Your task to perform on an android device: Show the shopping cart on costco.com. Search for "asus zenbook" on costco.com, select the first entry, and add it to the cart. Image 0: 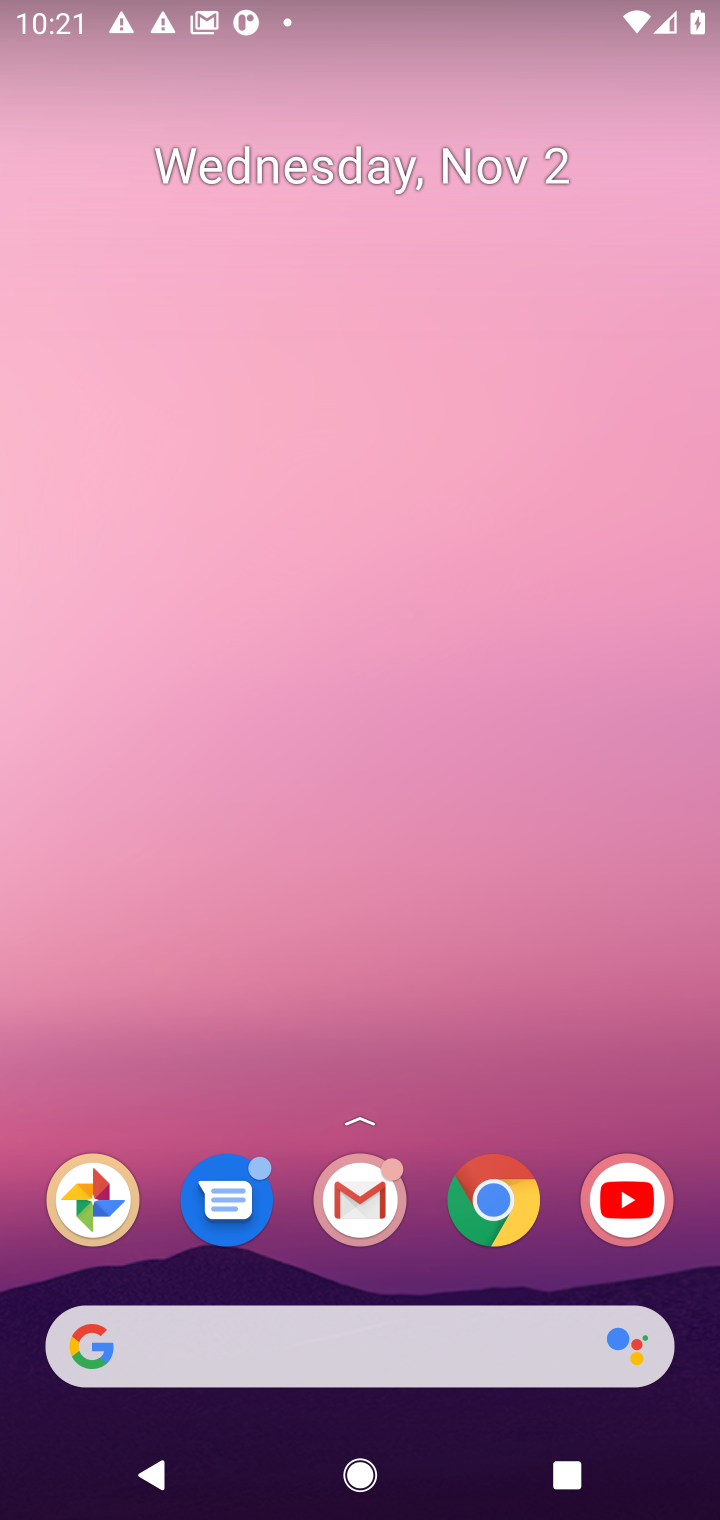
Step 0: press home button
Your task to perform on an android device: Show the shopping cart on costco.com. Search for "asus zenbook" on costco.com, select the first entry, and add it to the cart. Image 1: 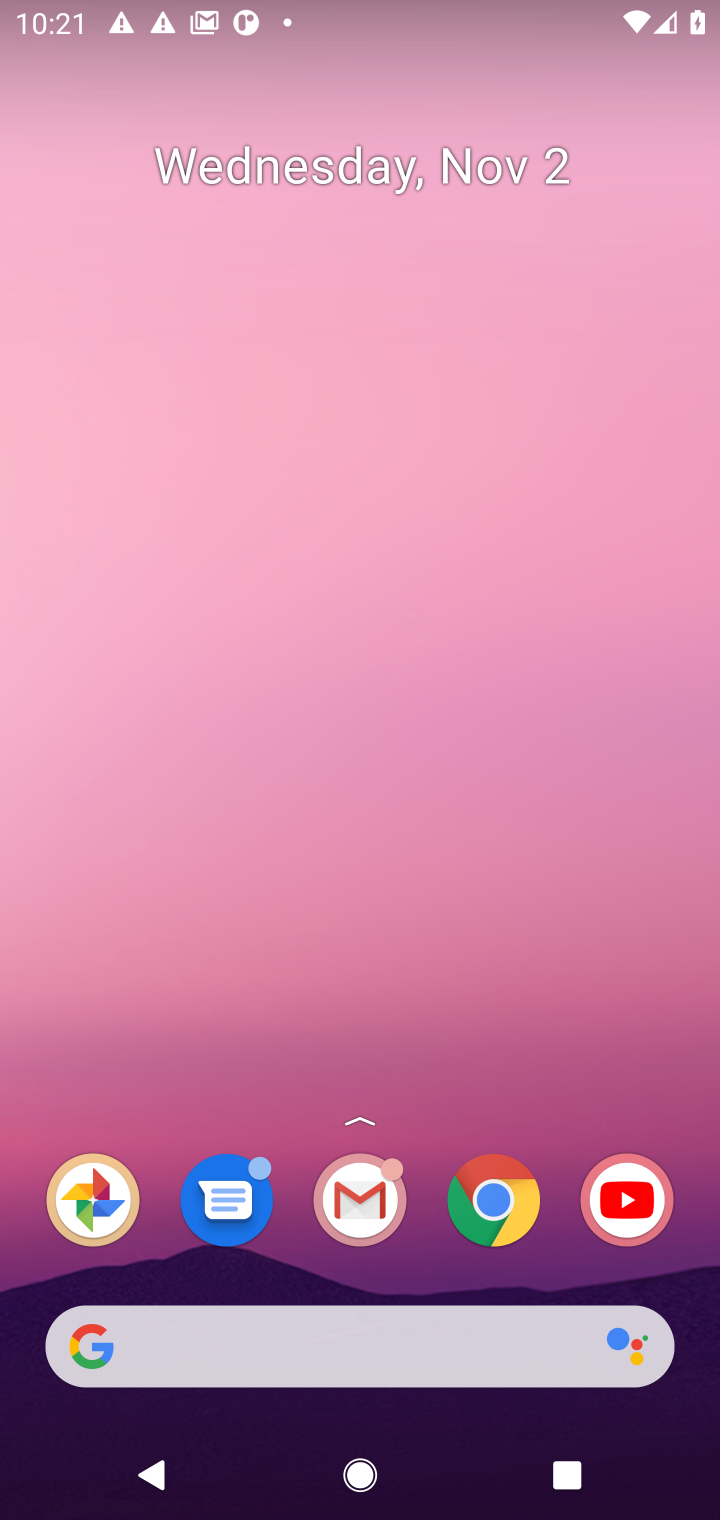
Step 1: click (491, 1181)
Your task to perform on an android device: Show the shopping cart on costco.com. Search for "asus zenbook" on costco.com, select the first entry, and add it to the cart. Image 2: 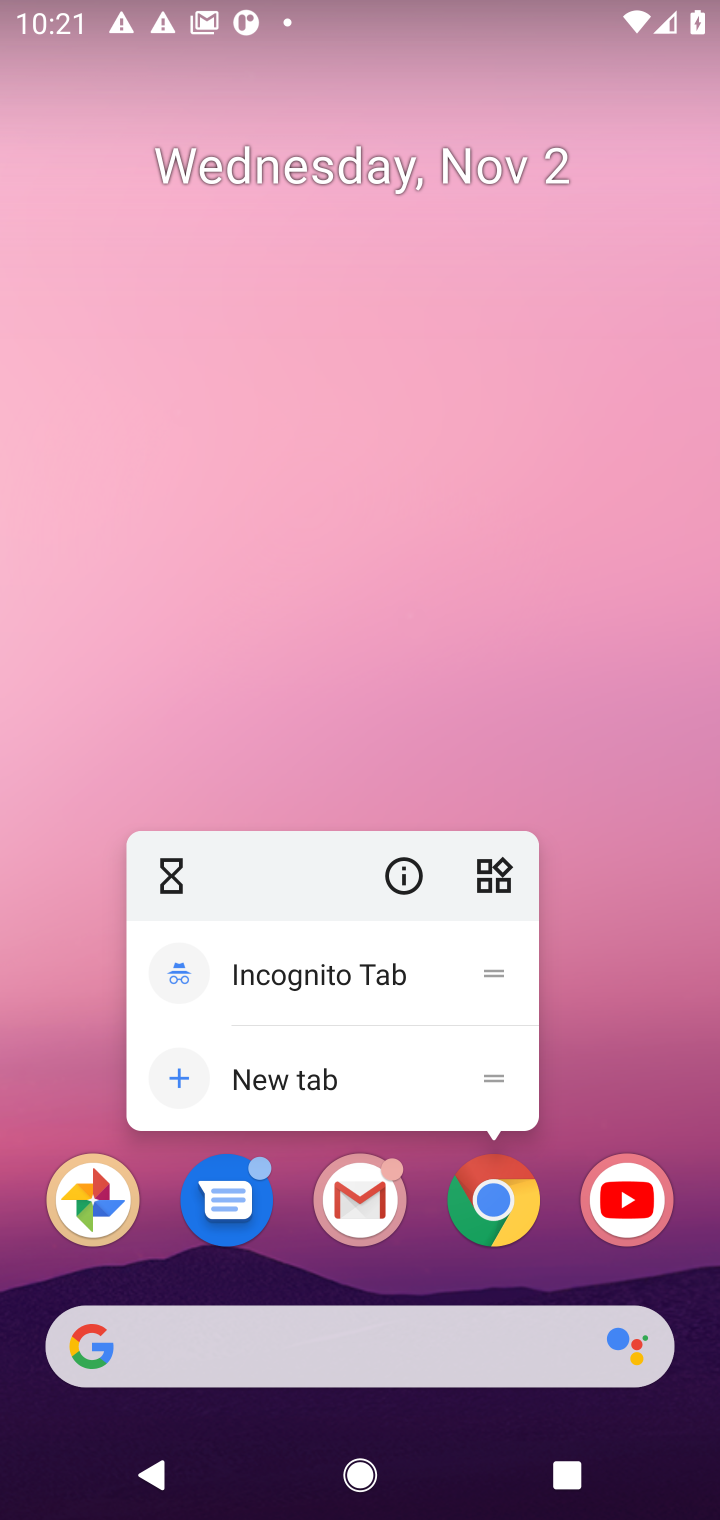
Step 2: click (491, 1181)
Your task to perform on an android device: Show the shopping cart on costco.com. Search for "asus zenbook" on costco.com, select the first entry, and add it to the cart. Image 3: 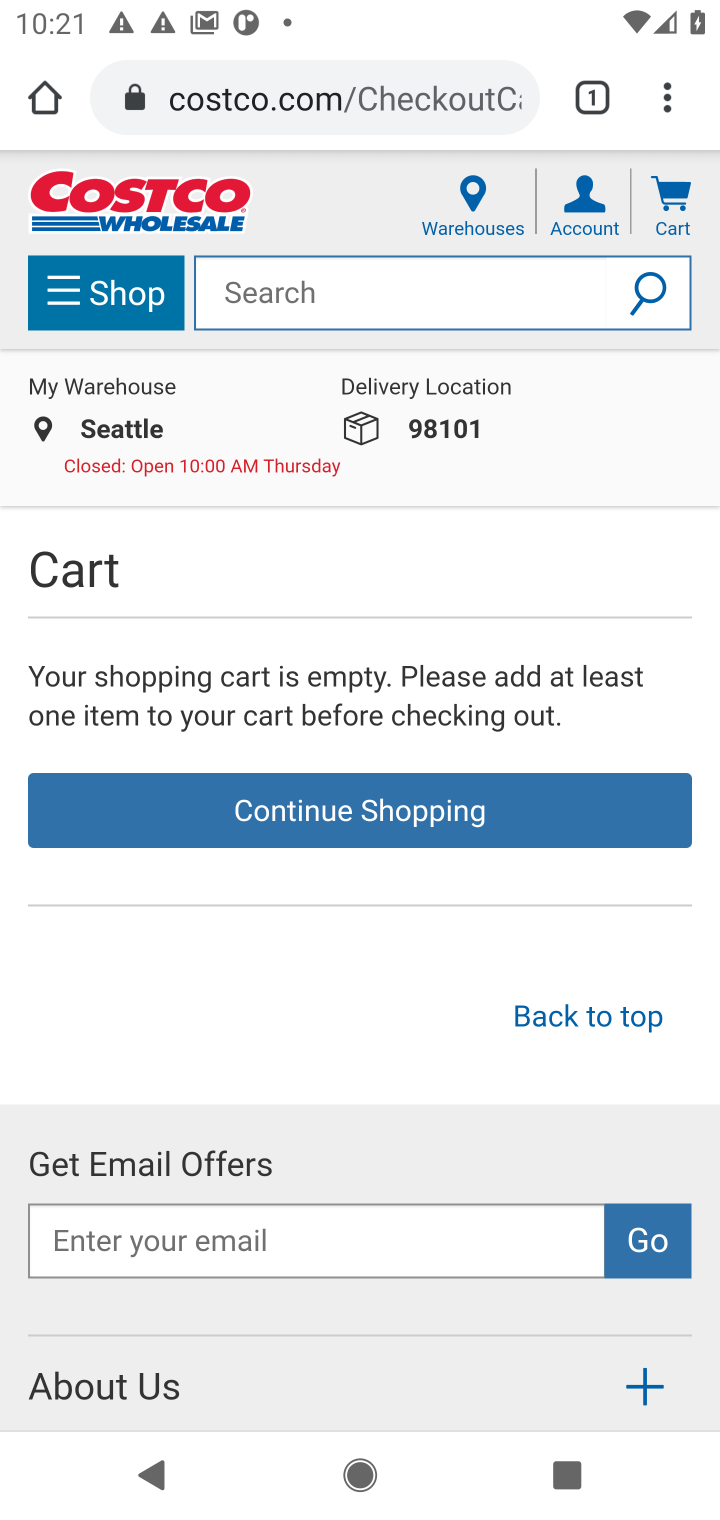
Step 3: click (304, 88)
Your task to perform on an android device: Show the shopping cart on costco.com. Search for "asus zenbook" on costco.com, select the first entry, and add it to the cart. Image 4: 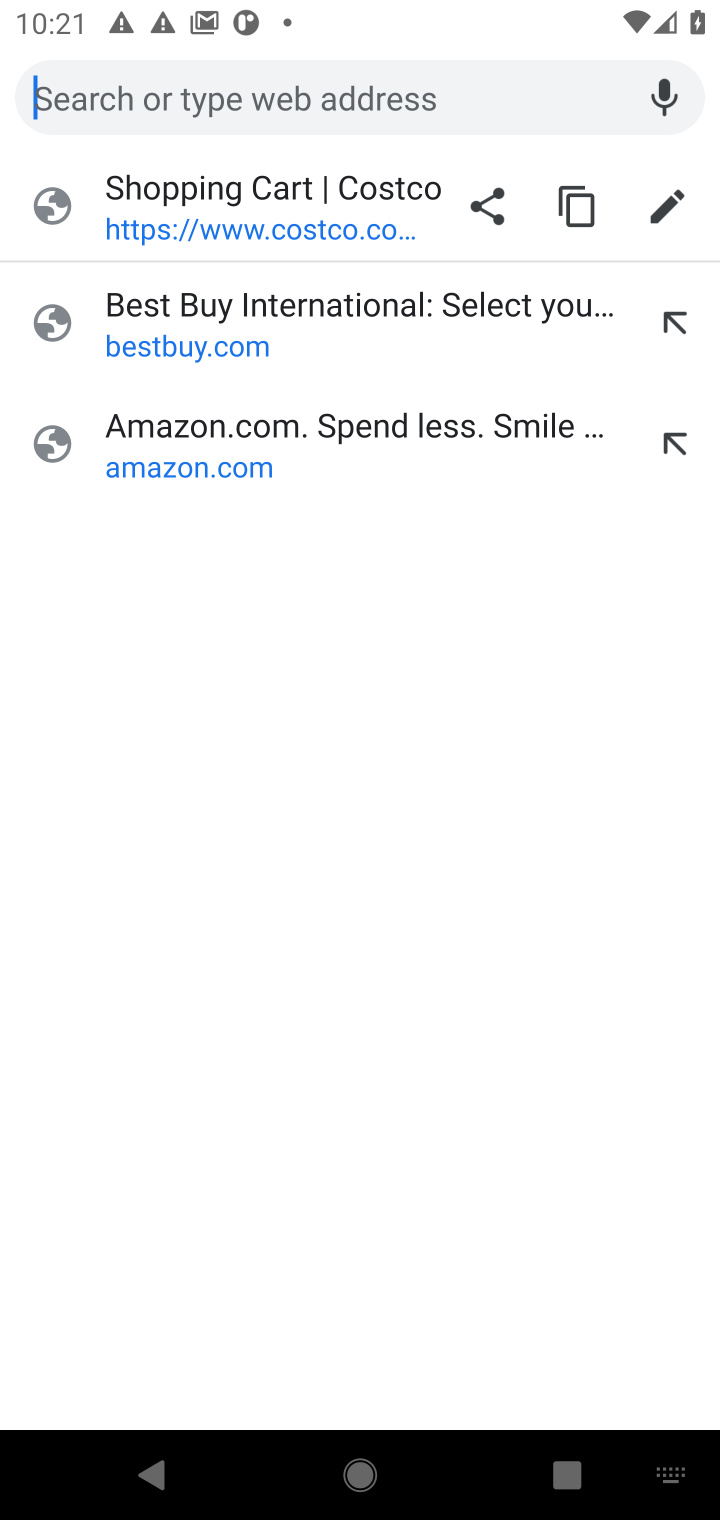
Step 4: click (292, 185)
Your task to perform on an android device: Show the shopping cart on costco.com. Search for "asus zenbook" on costco.com, select the first entry, and add it to the cart. Image 5: 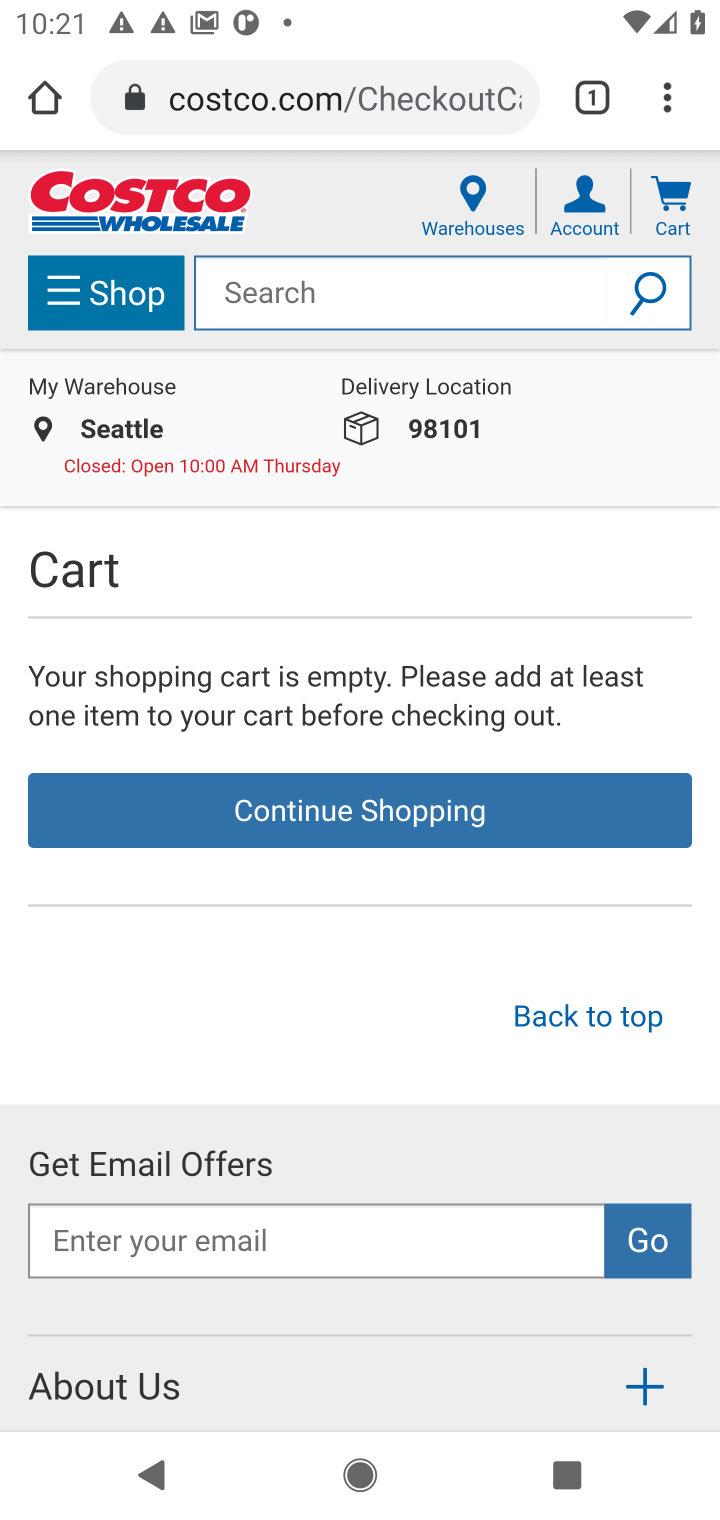
Step 5: click (357, 296)
Your task to perform on an android device: Show the shopping cart on costco.com. Search for "asus zenbook" on costco.com, select the first entry, and add it to the cart. Image 6: 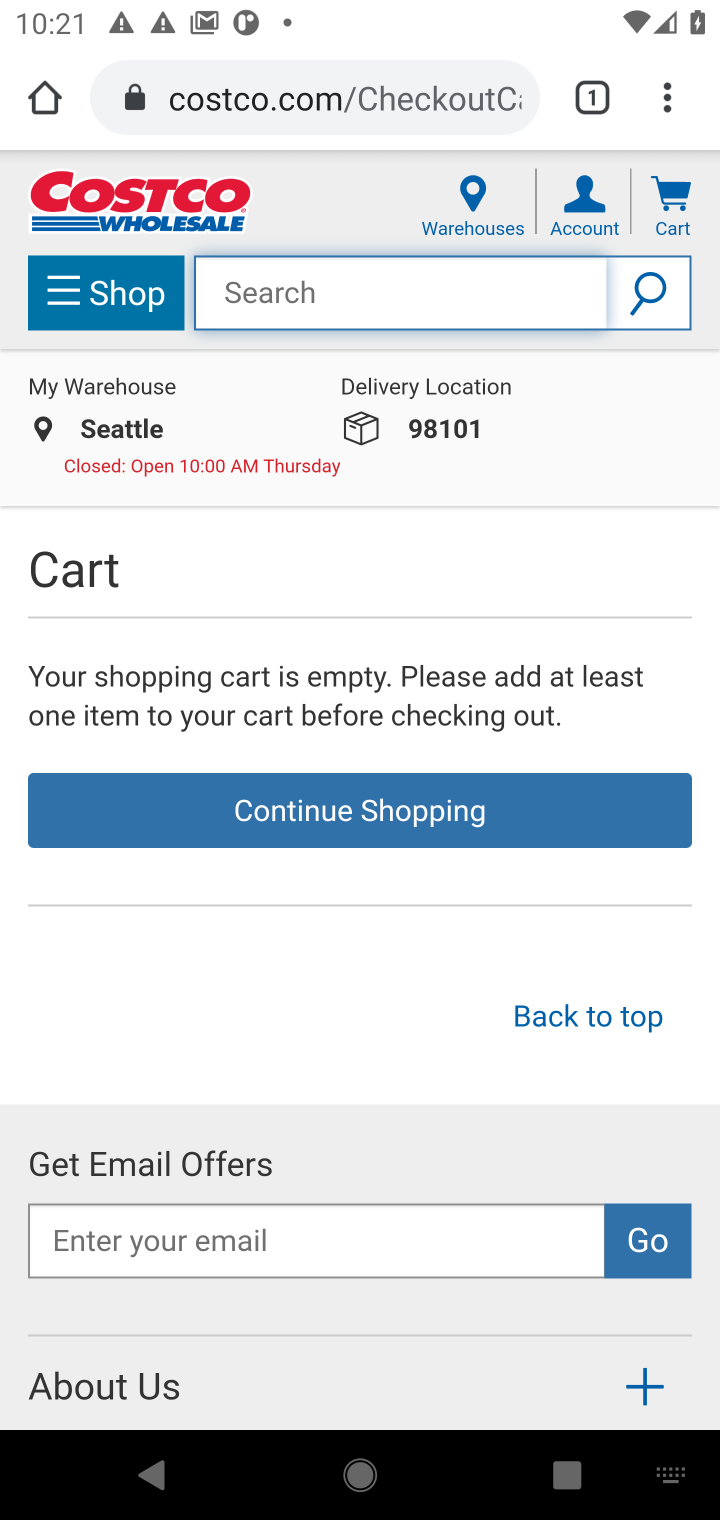
Step 6: click (420, 284)
Your task to perform on an android device: Show the shopping cart on costco.com. Search for "asus zenbook" on costco.com, select the first entry, and add it to the cart. Image 7: 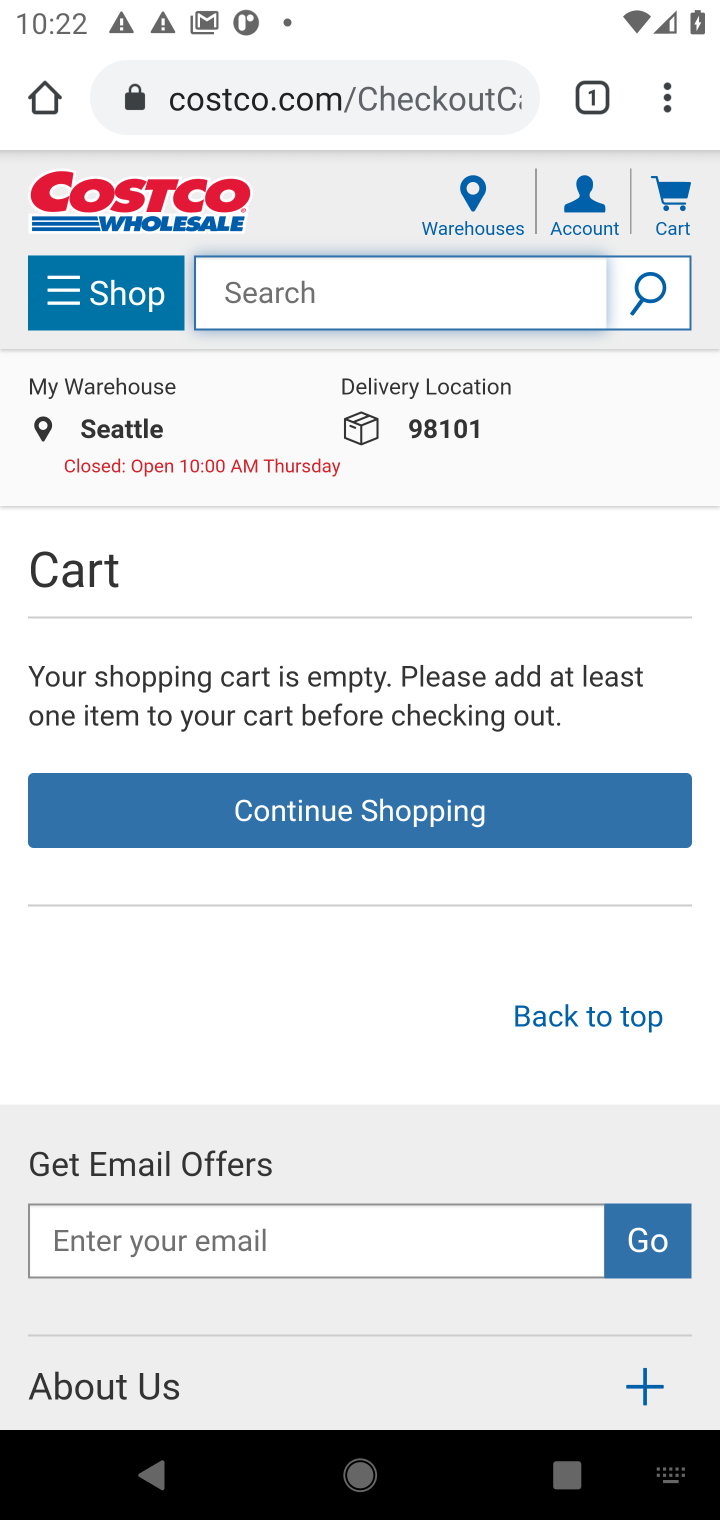
Step 7: press enter
Your task to perform on an android device: Show the shopping cart on costco.com. Search for "asus zenbook" on costco.com, select the first entry, and add it to the cart. Image 8: 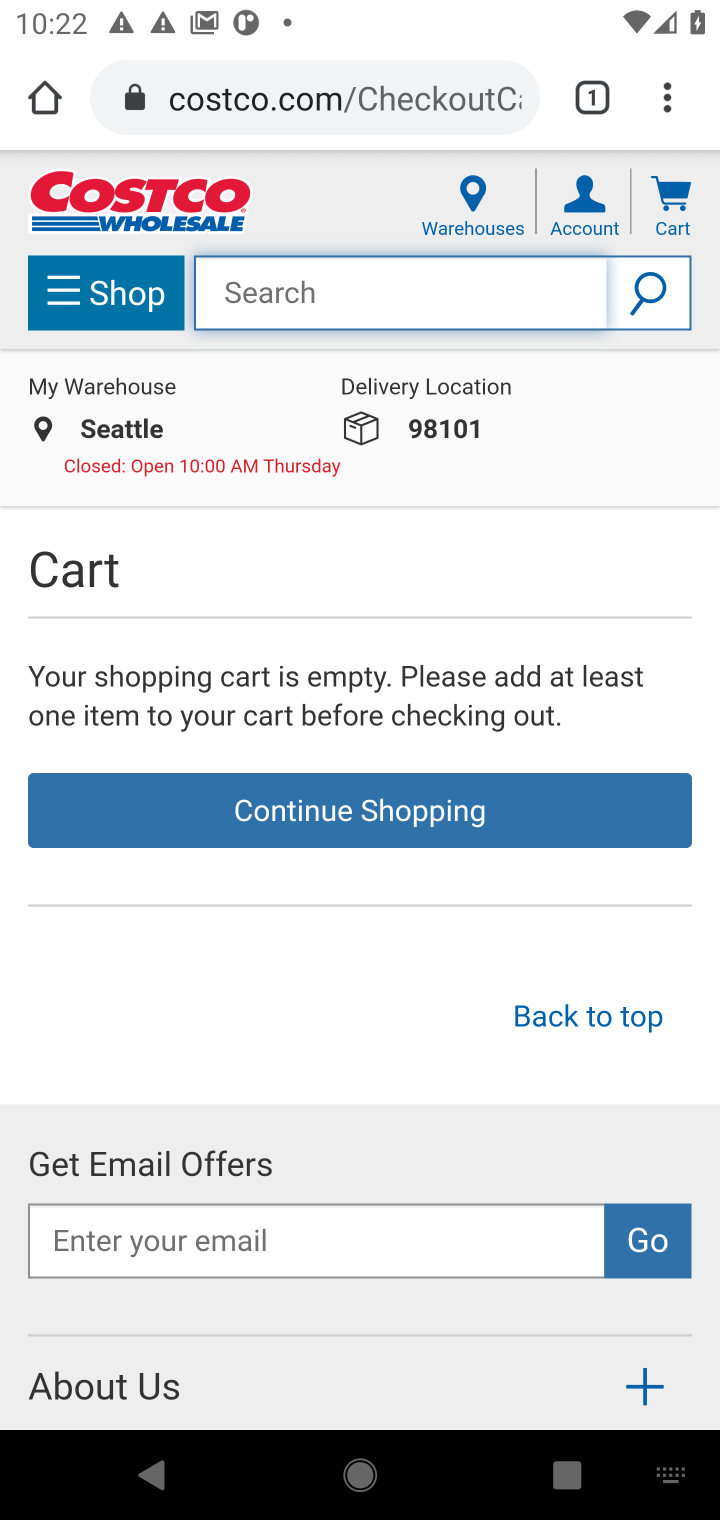
Step 8: type "asus zenbook"
Your task to perform on an android device: Show the shopping cart on costco.com. Search for "asus zenbook" on costco.com, select the first entry, and add it to the cart. Image 9: 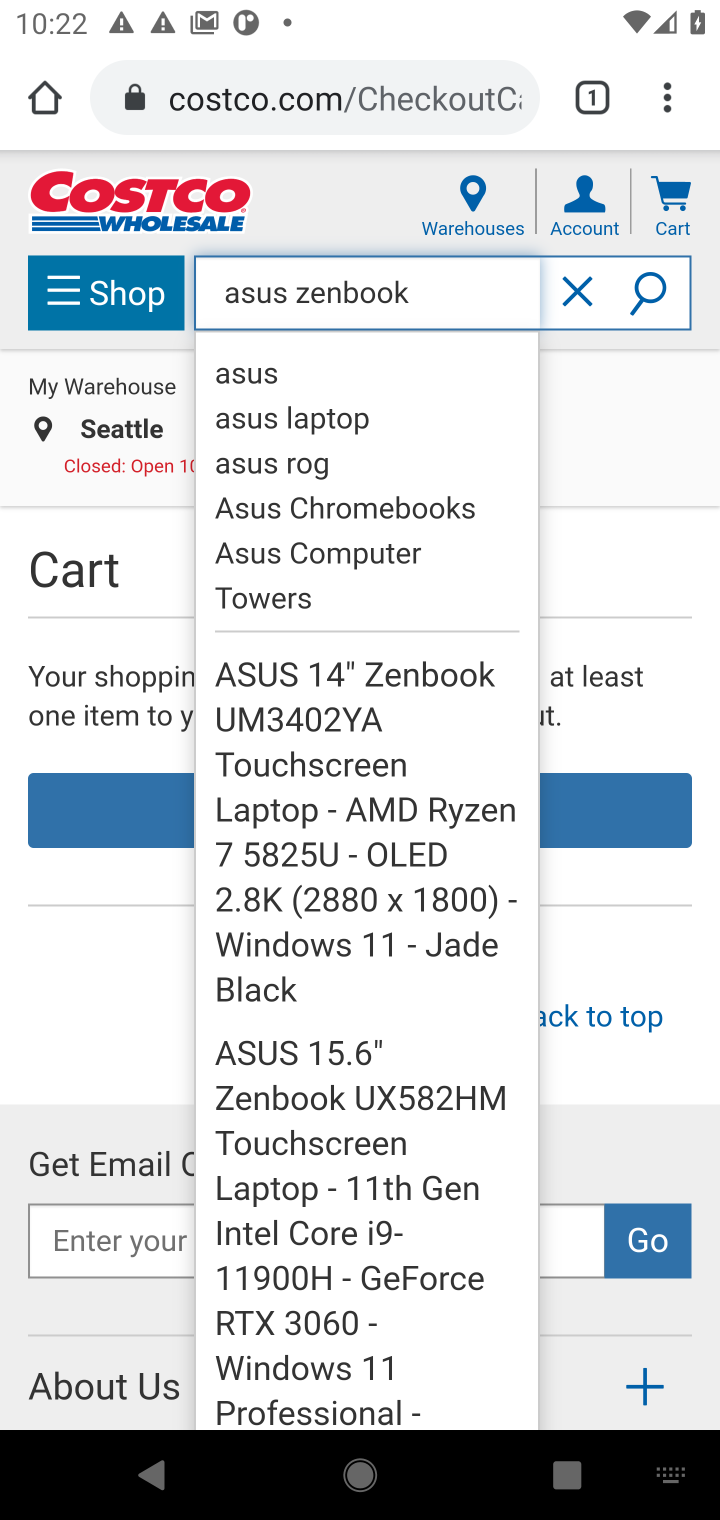
Step 9: click (634, 389)
Your task to perform on an android device: Show the shopping cart on costco.com. Search for "asus zenbook" on costco.com, select the first entry, and add it to the cart. Image 10: 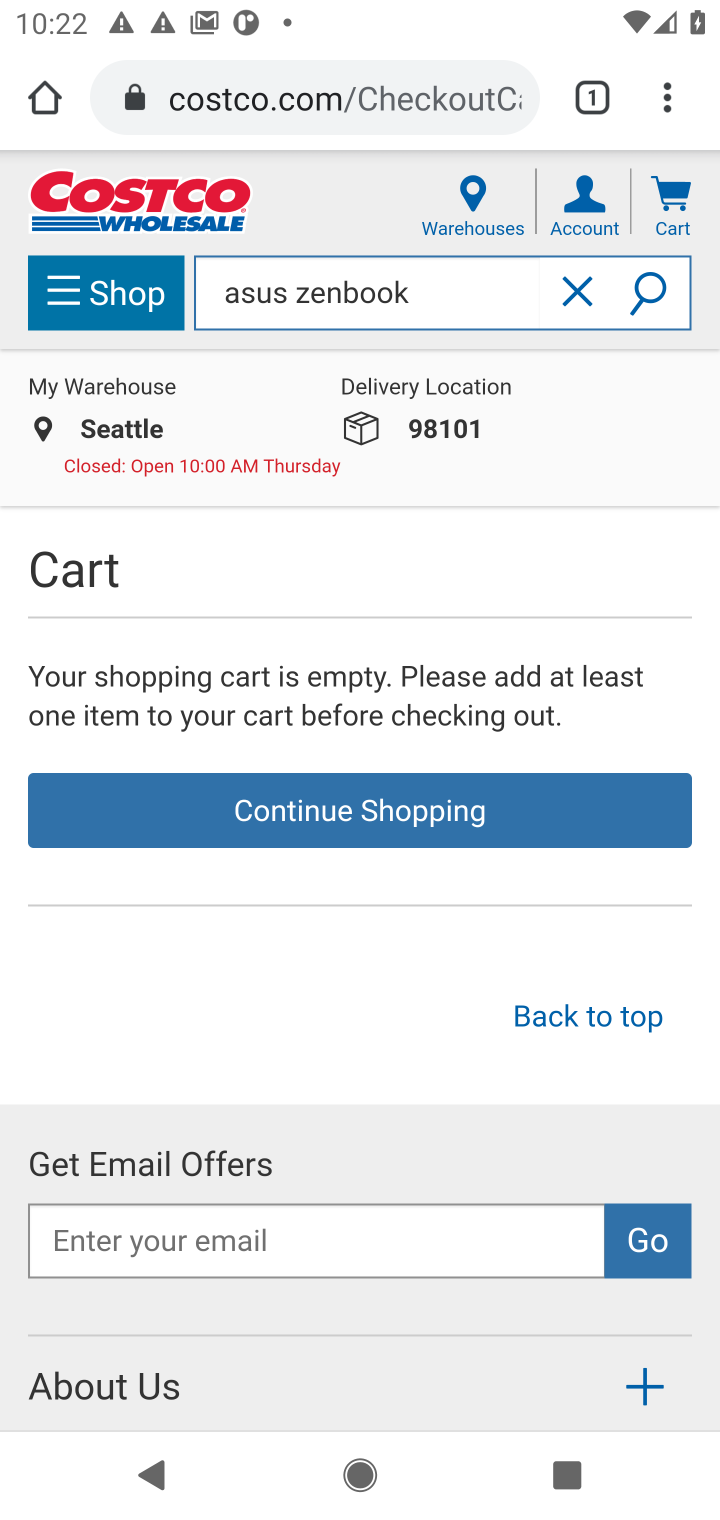
Step 10: click (480, 302)
Your task to perform on an android device: Show the shopping cart on costco.com. Search for "asus zenbook" on costco.com, select the first entry, and add it to the cart. Image 11: 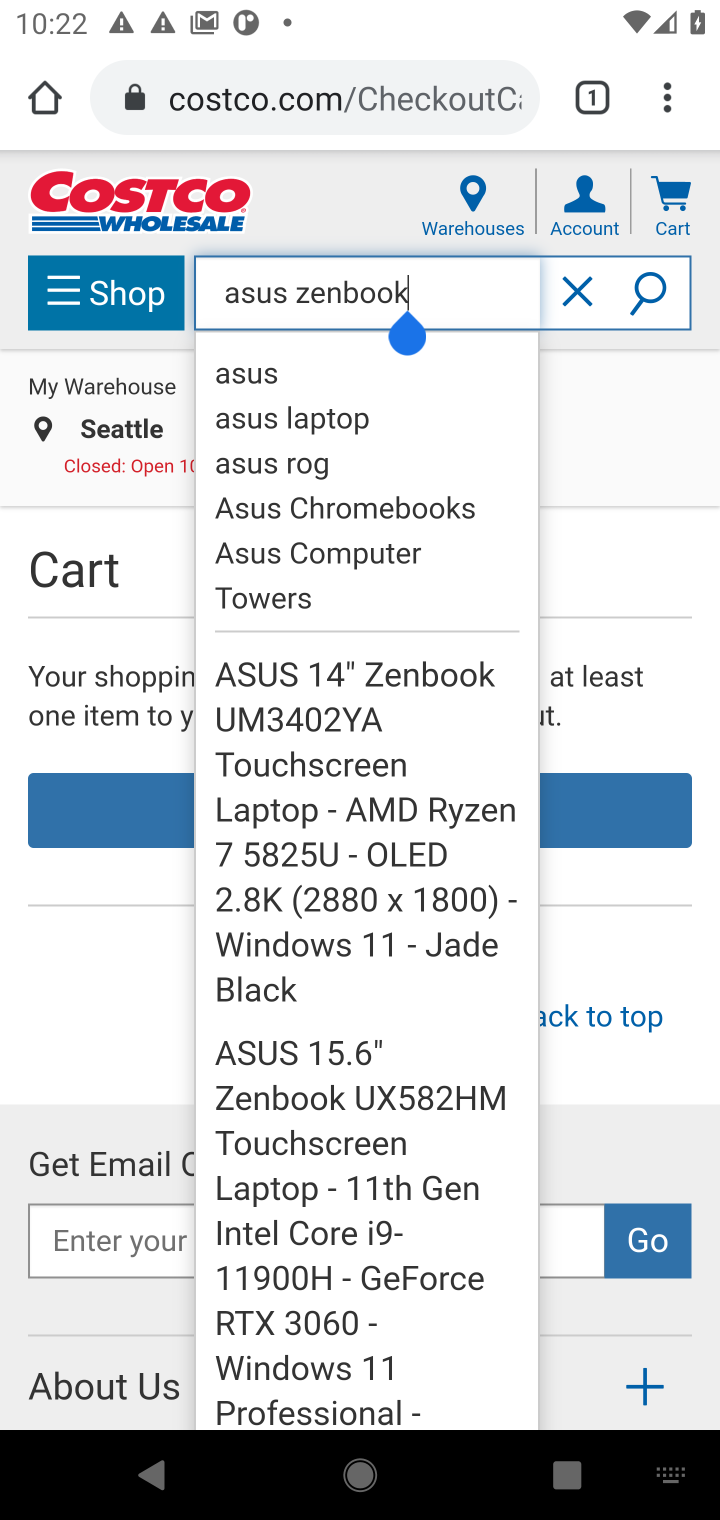
Step 11: click (645, 358)
Your task to perform on an android device: Show the shopping cart on costco.com. Search for "asus zenbook" on costco.com, select the first entry, and add it to the cart. Image 12: 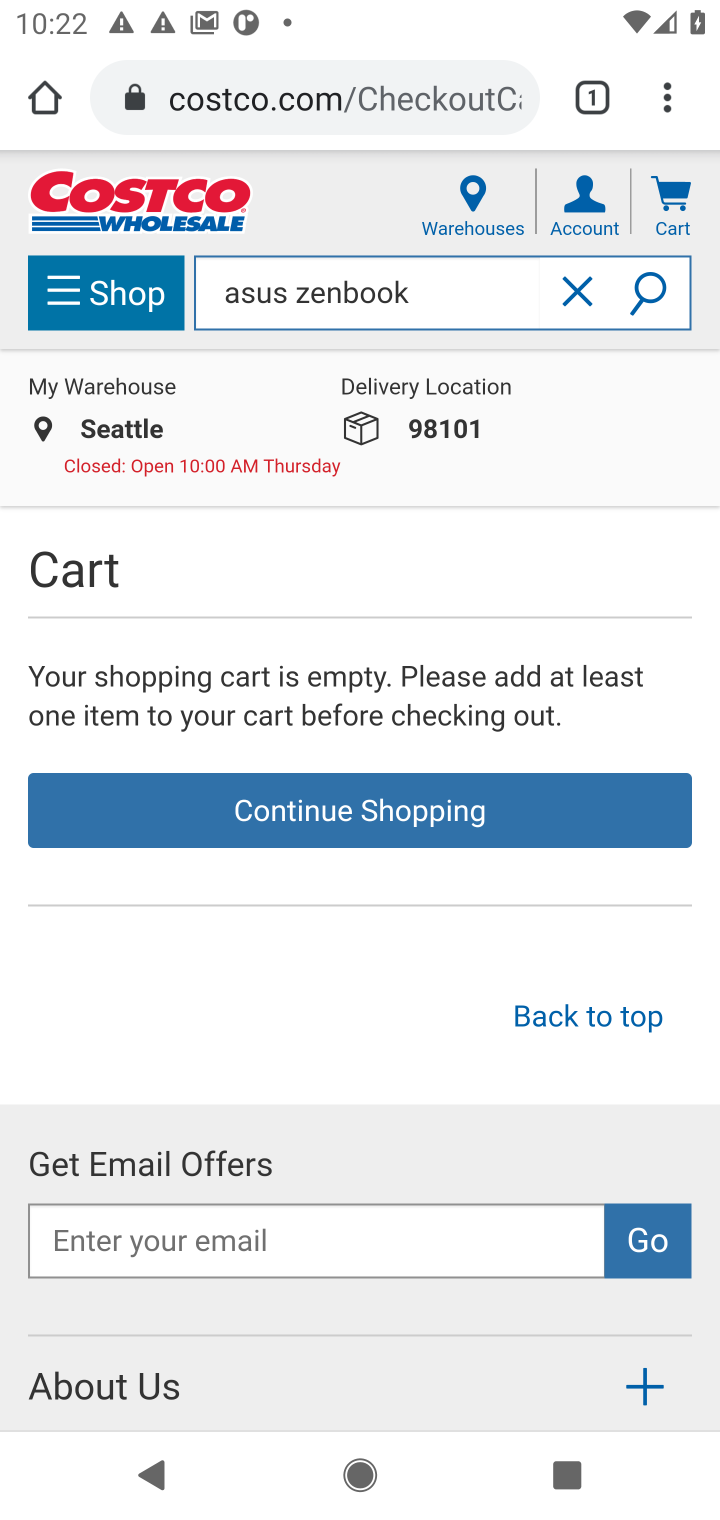
Step 12: task complete